Your task to perform on an android device: search for starred emails in the gmail app Image 0: 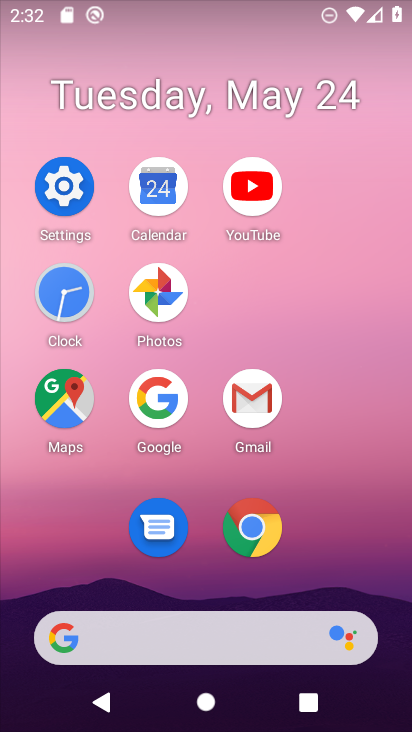
Step 0: click (271, 392)
Your task to perform on an android device: search for starred emails in the gmail app Image 1: 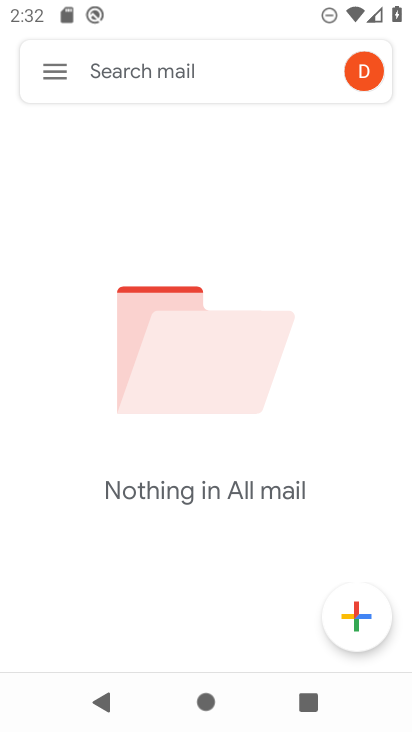
Step 1: click (54, 82)
Your task to perform on an android device: search for starred emails in the gmail app Image 2: 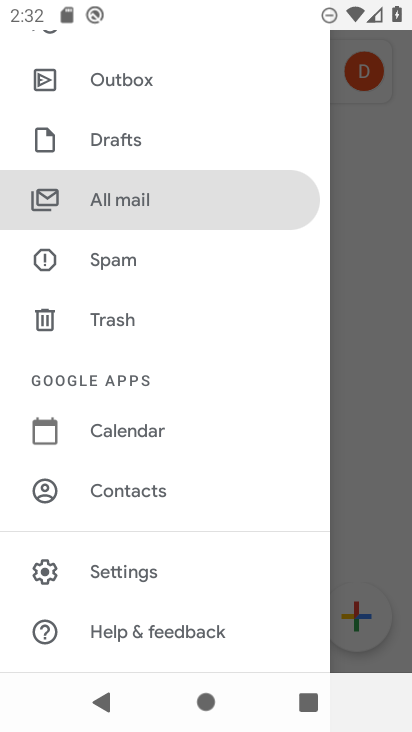
Step 2: drag from (232, 202) to (236, 579)
Your task to perform on an android device: search for starred emails in the gmail app Image 3: 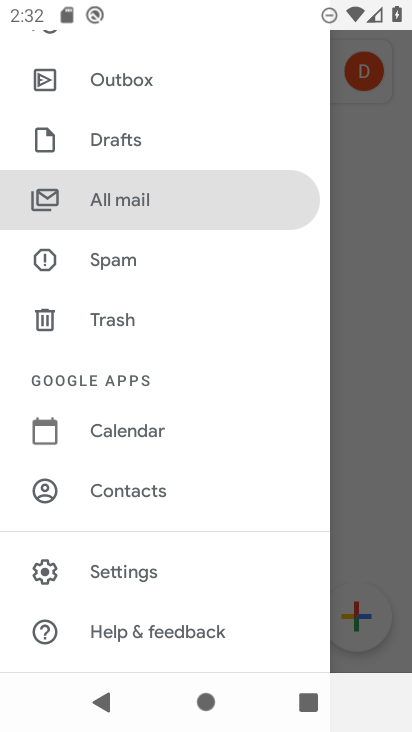
Step 3: drag from (206, 108) to (255, 477)
Your task to perform on an android device: search for starred emails in the gmail app Image 4: 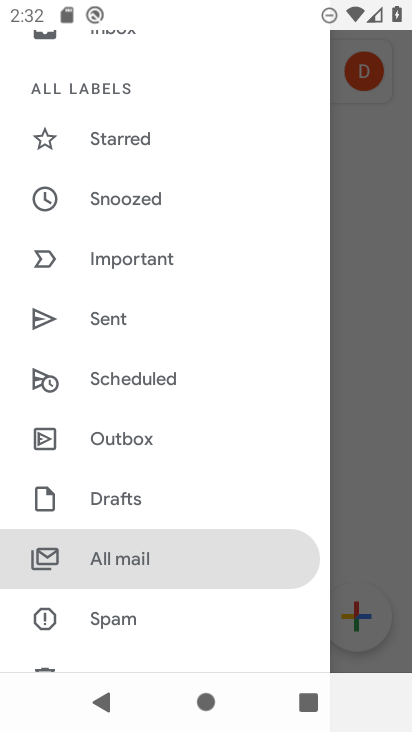
Step 4: click (165, 134)
Your task to perform on an android device: search for starred emails in the gmail app Image 5: 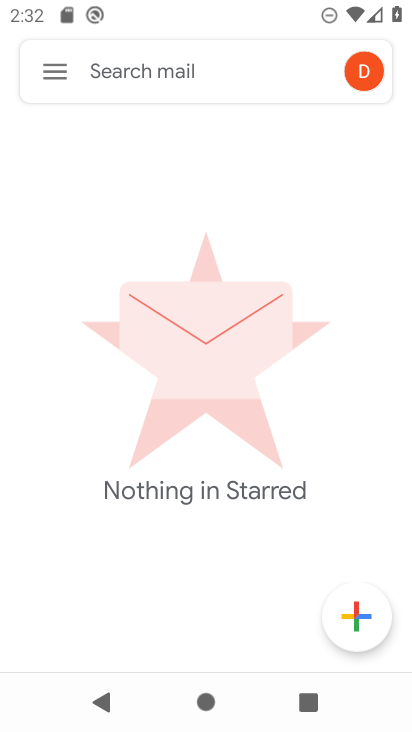
Step 5: task complete